Your task to perform on an android device: change the clock display to digital Image 0: 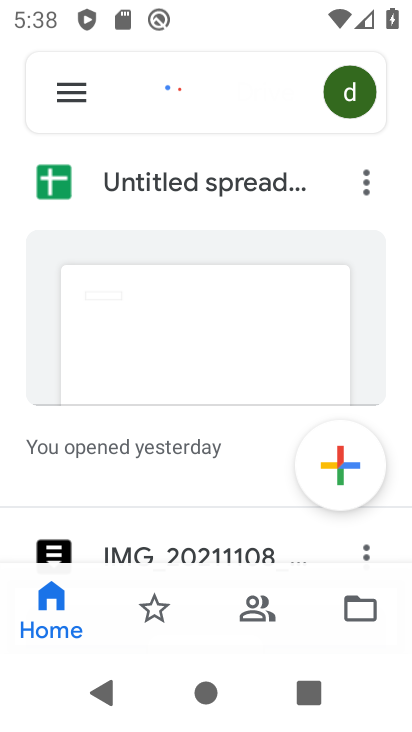
Step 0: press home button
Your task to perform on an android device: change the clock display to digital Image 1: 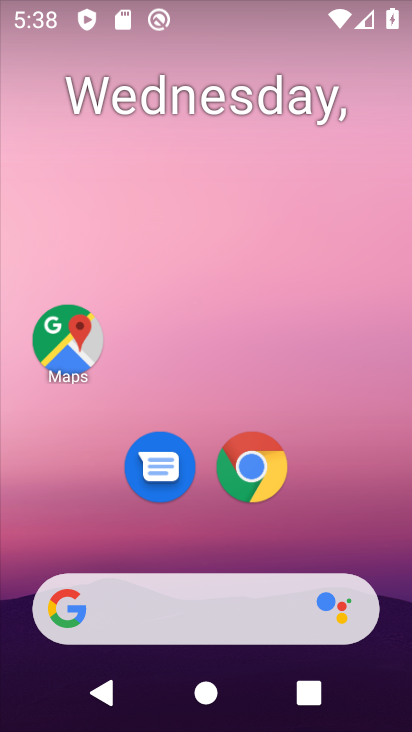
Step 1: drag from (315, 526) to (324, 135)
Your task to perform on an android device: change the clock display to digital Image 2: 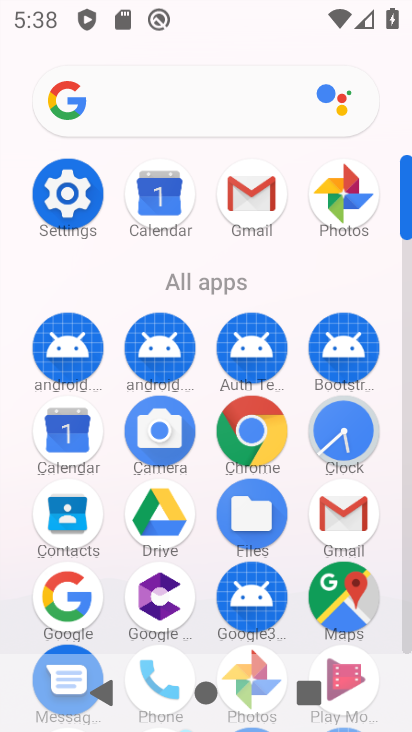
Step 2: click (362, 421)
Your task to perform on an android device: change the clock display to digital Image 3: 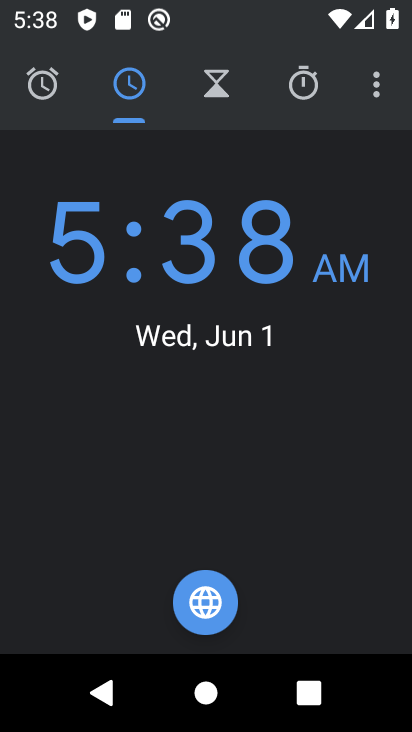
Step 3: click (377, 96)
Your task to perform on an android device: change the clock display to digital Image 4: 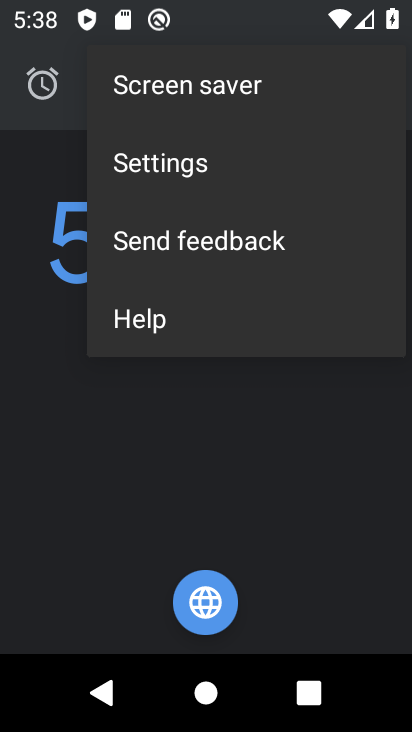
Step 4: click (152, 164)
Your task to perform on an android device: change the clock display to digital Image 5: 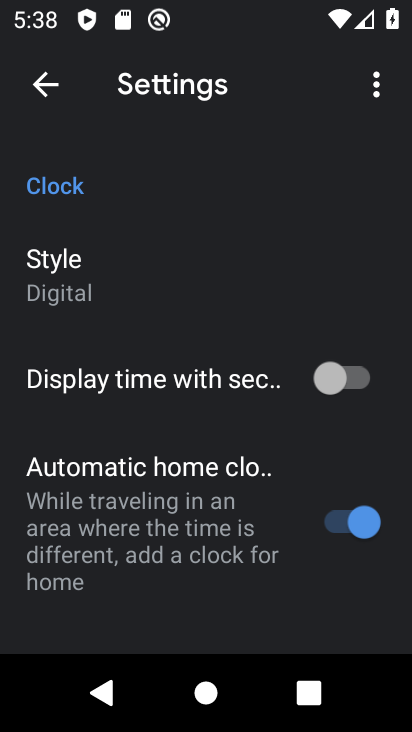
Step 5: task complete